Your task to perform on an android device: allow notifications from all sites in the chrome app Image 0: 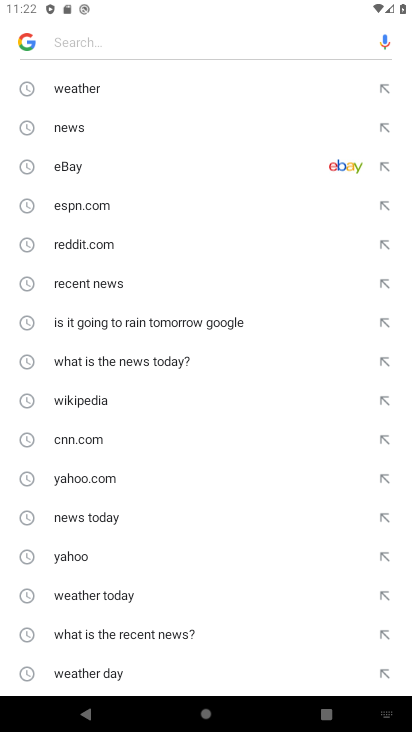
Step 0: press home button
Your task to perform on an android device: allow notifications from all sites in the chrome app Image 1: 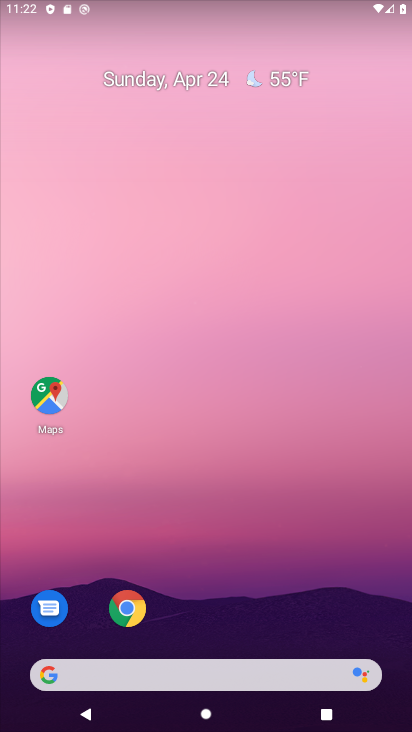
Step 1: click (124, 614)
Your task to perform on an android device: allow notifications from all sites in the chrome app Image 2: 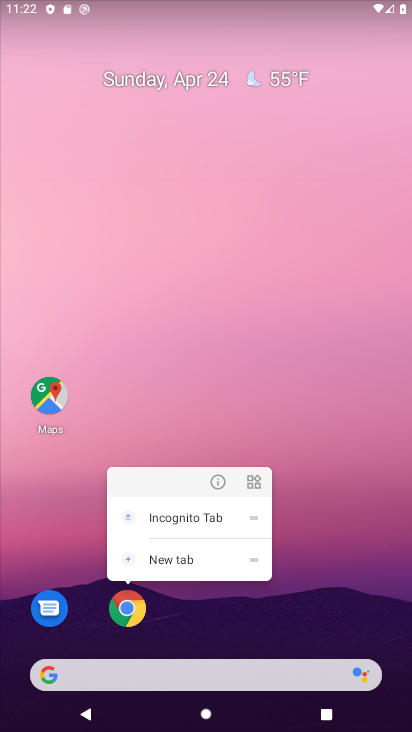
Step 2: click (126, 608)
Your task to perform on an android device: allow notifications from all sites in the chrome app Image 3: 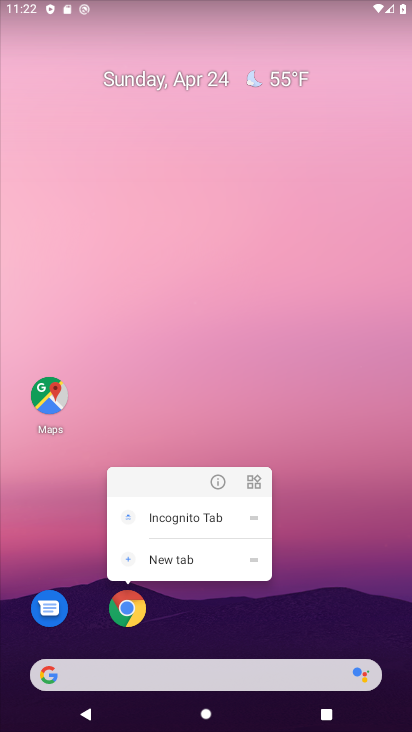
Step 3: click (134, 600)
Your task to perform on an android device: allow notifications from all sites in the chrome app Image 4: 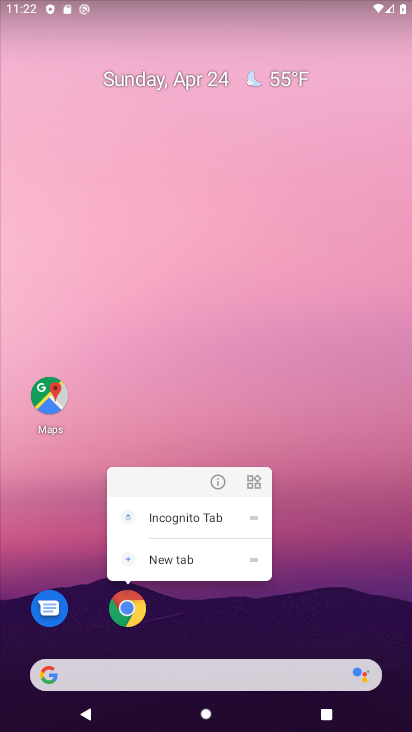
Step 4: click (134, 609)
Your task to perform on an android device: allow notifications from all sites in the chrome app Image 5: 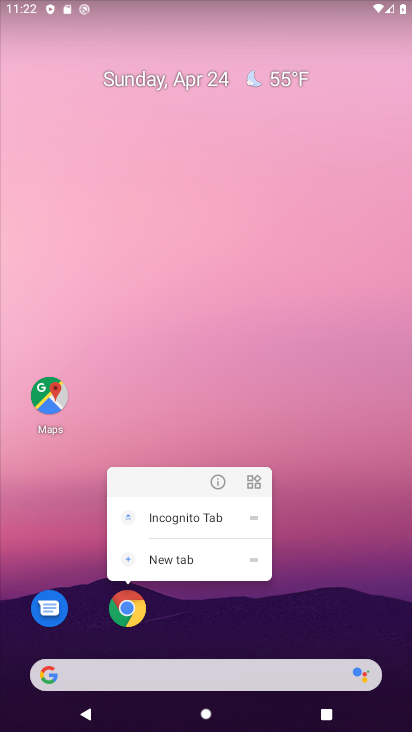
Step 5: click (128, 607)
Your task to perform on an android device: allow notifications from all sites in the chrome app Image 6: 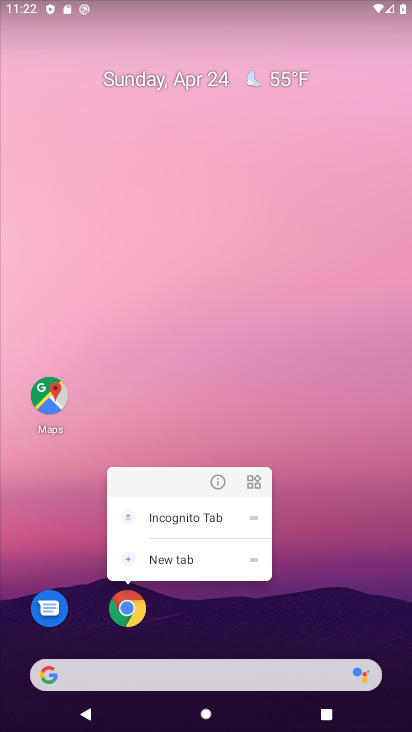
Step 6: click (128, 607)
Your task to perform on an android device: allow notifications from all sites in the chrome app Image 7: 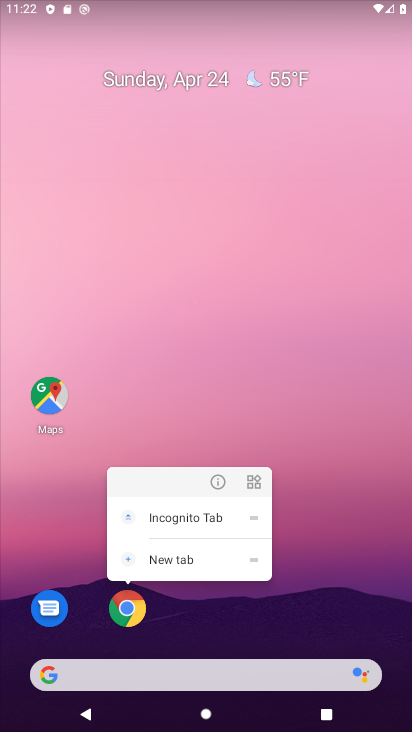
Step 7: click (128, 607)
Your task to perform on an android device: allow notifications from all sites in the chrome app Image 8: 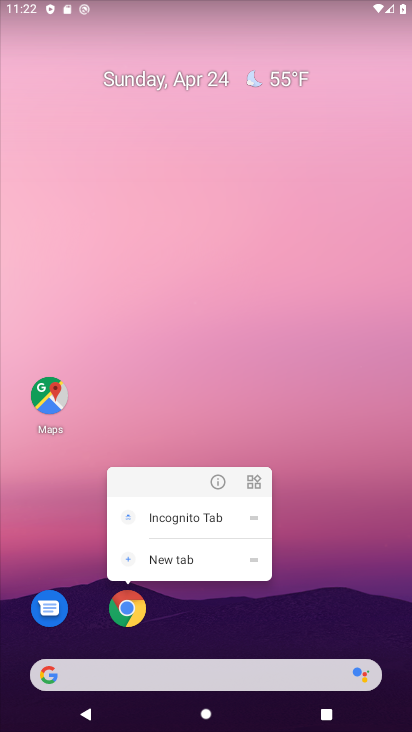
Step 8: click (127, 603)
Your task to perform on an android device: allow notifications from all sites in the chrome app Image 9: 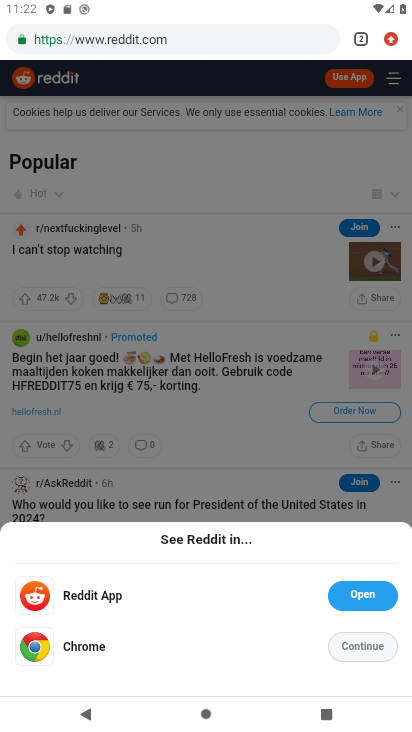
Step 9: click (235, 232)
Your task to perform on an android device: allow notifications from all sites in the chrome app Image 10: 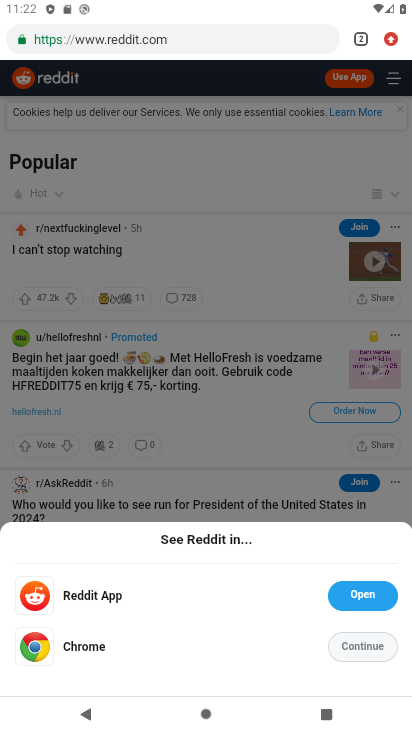
Step 10: drag from (397, 39) to (275, 504)
Your task to perform on an android device: allow notifications from all sites in the chrome app Image 11: 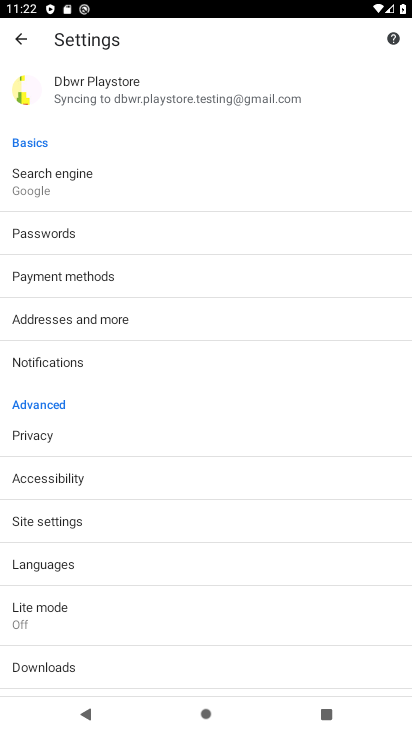
Step 11: click (68, 525)
Your task to perform on an android device: allow notifications from all sites in the chrome app Image 12: 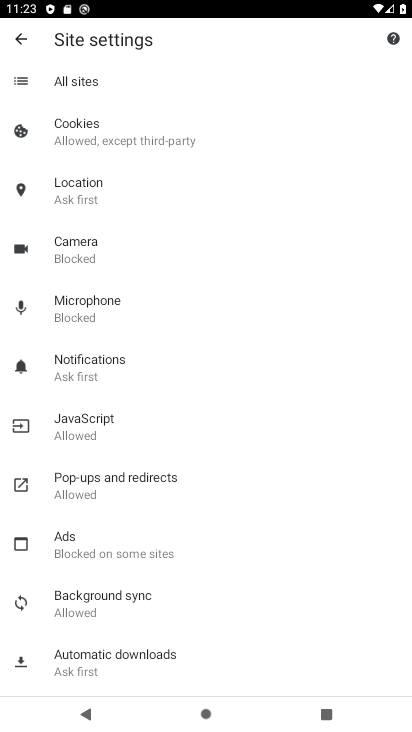
Step 12: click (135, 376)
Your task to perform on an android device: allow notifications from all sites in the chrome app Image 13: 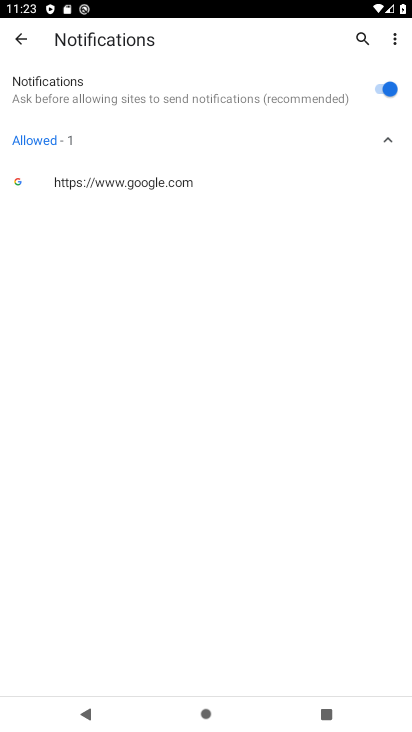
Step 13: task complete